Your task to perform on an android device: empty trash in the gmail app Image 0: 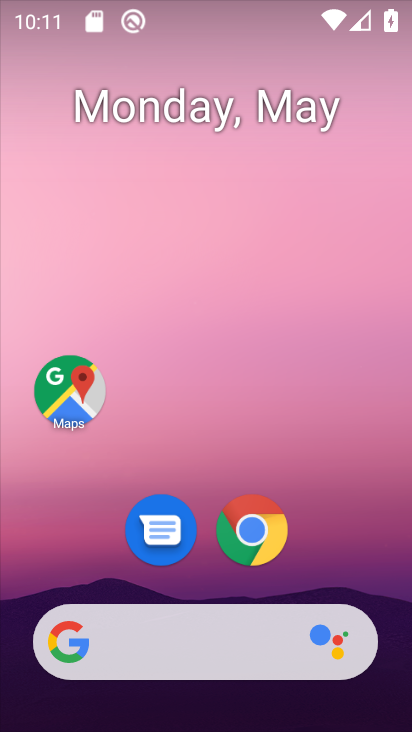
Step 0: drag from (204, 605) to (139, 4)
Your task to perform on an android device: empty trash in the gmail app Image 1: 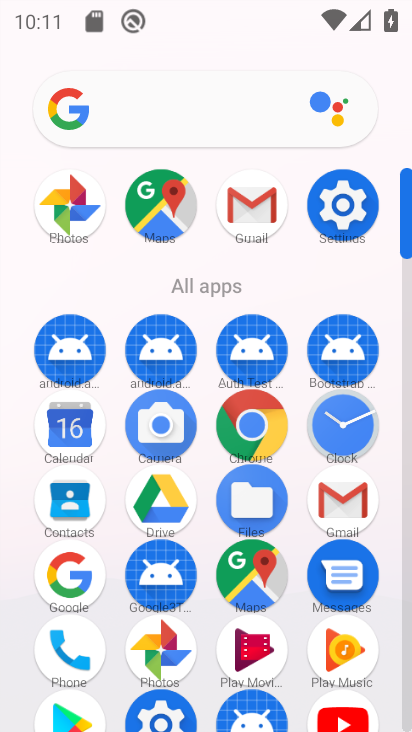
Step 1: click (331, 500)
Your task to perform on an android device: empty trash in the gmail app Image 2: 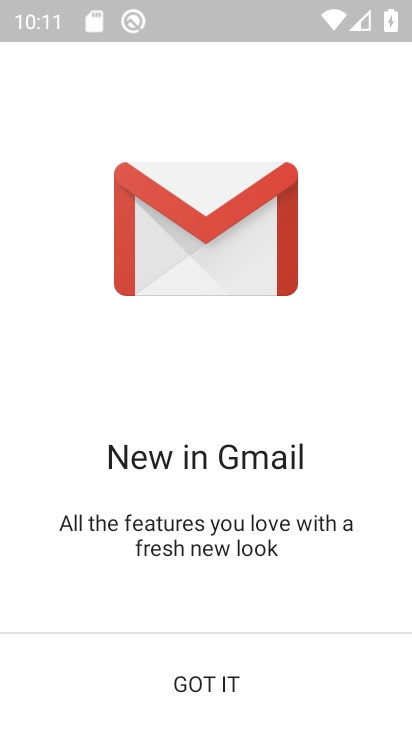
Step 2: click (229, 658)
Your task to perform on an android device: empty trash in the gmail app Image 3: 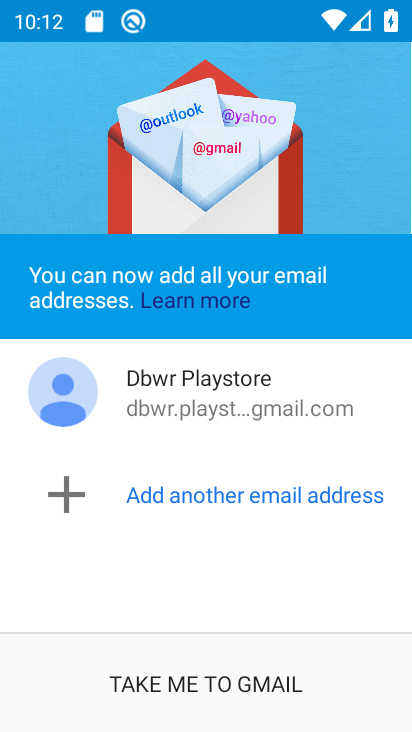
Step 3: click (274, 688)
Your task to perform on an android device: empty trash in the gmail app Image 4: 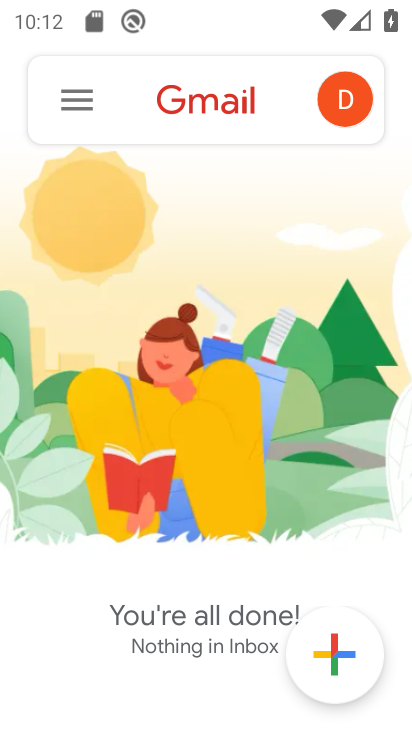
Step 4: click (84, 123)
Your task to perform on an android device: empty trash in the gmail app Image 5: 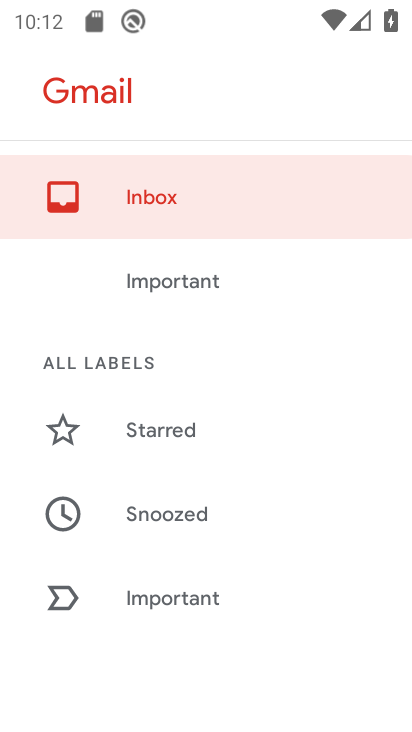
Step 5: drag from (220, 569) to (218, 42)
Your task to perform on an android device: empty trash in the gmail app Image 6: 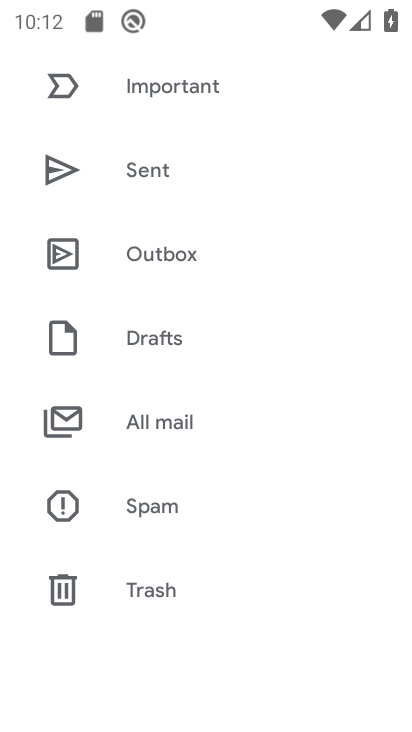
Step 6: click (153, 584)
Your task to perform on an android device: empty trash in the gmail app Image 7: 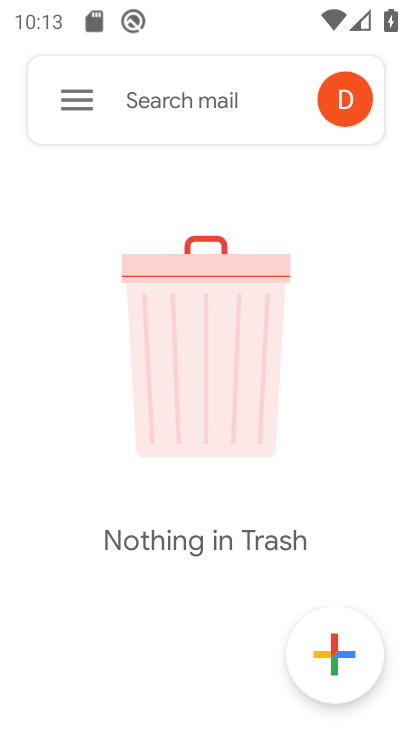
Step 7: task complete